Your task to perform on an android device: What is the news today? Image 0: 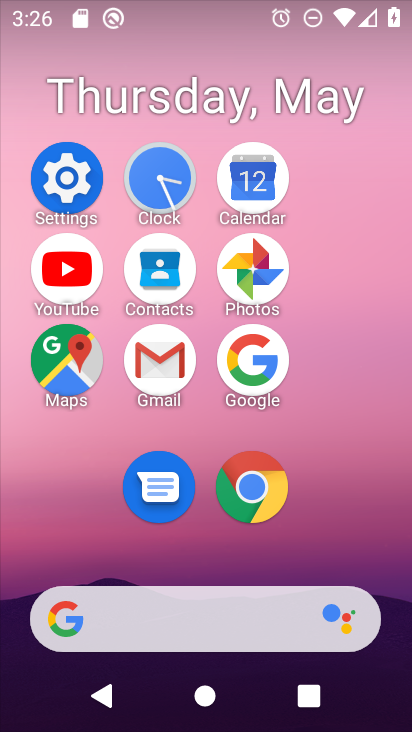
Step 0: click (254, 351)
Your task to perform on an android device: What is the news today? Image 1: 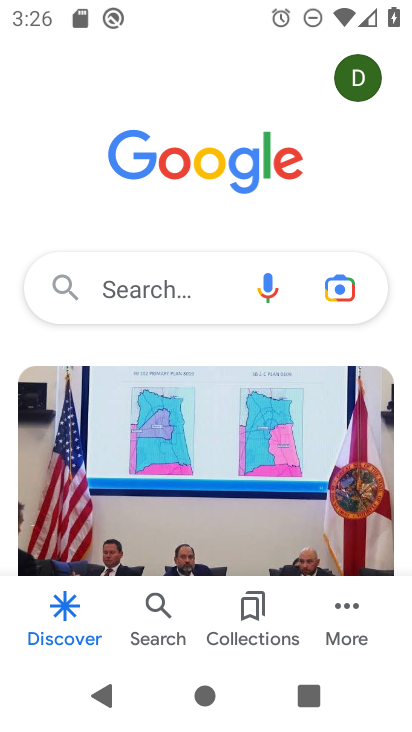
Step 1: click (142, 282)
Your task to perform on an android device: What is the news today? Image 2: 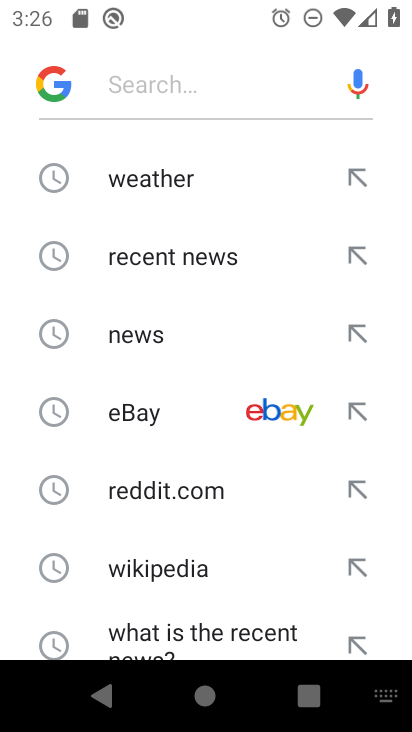
Step 2: click (165, 343)
Your task to perform on an android device: What is the news today? Image 3: 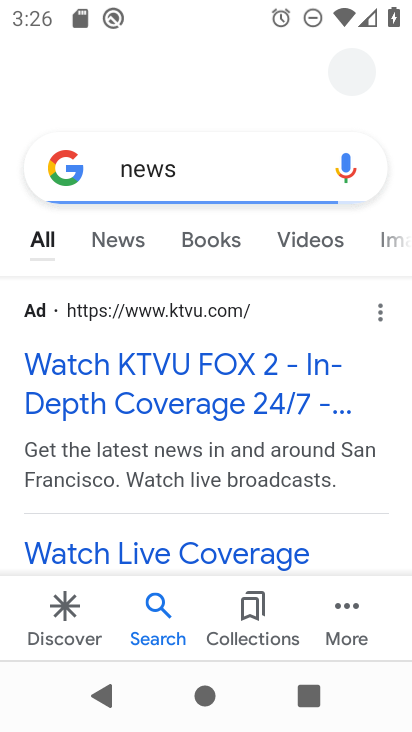
Step 3: task complete